Your task to perform on an android device: turn off notifications settings in the gmail app Image 0: 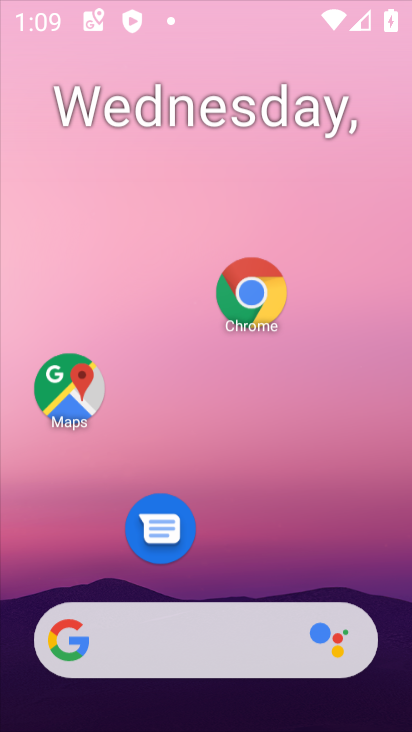
Step 0: click (278, 55)
Your task to perform on an android device: turn off notifications settings in the gmail app Image 1: 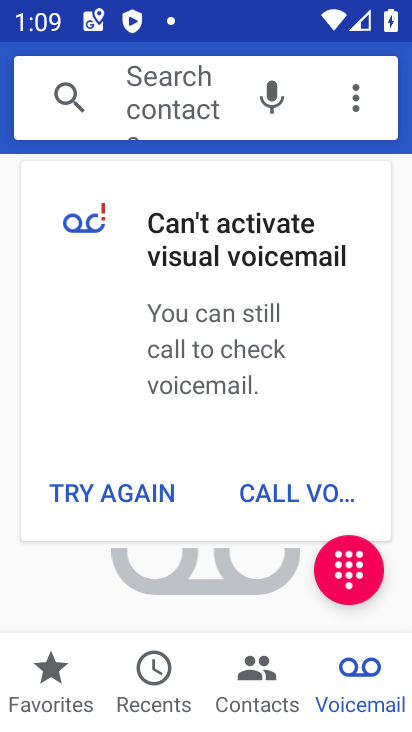
Step 1: press home button
Your task to perform on an android device: turn off notifications settings in the gmail app Image 2: 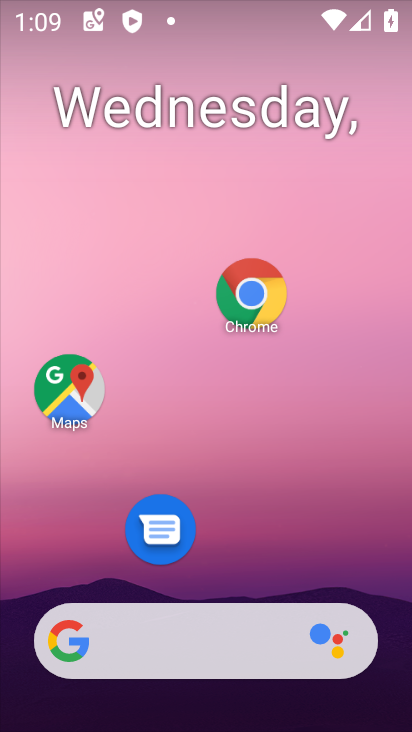
Step 2: drag from (283, 476) to (363, 40)
Your task to perform on an android device: turn off notifications settings in the gmail app Image 3: 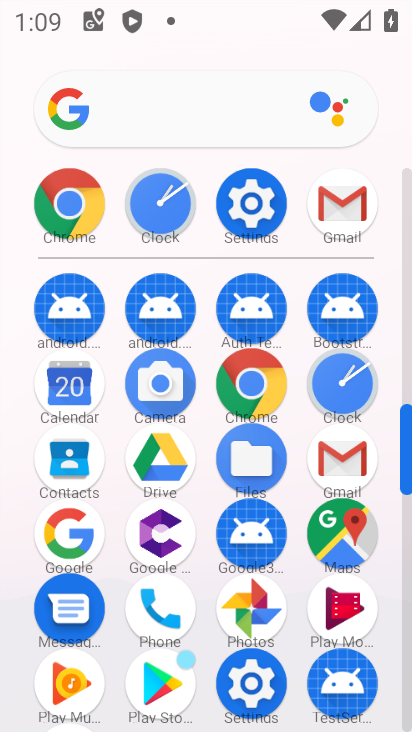
Step 3: click (341, 468)
Your task to perform on an android device: turn off notifications settings in the gmail app Image 4: 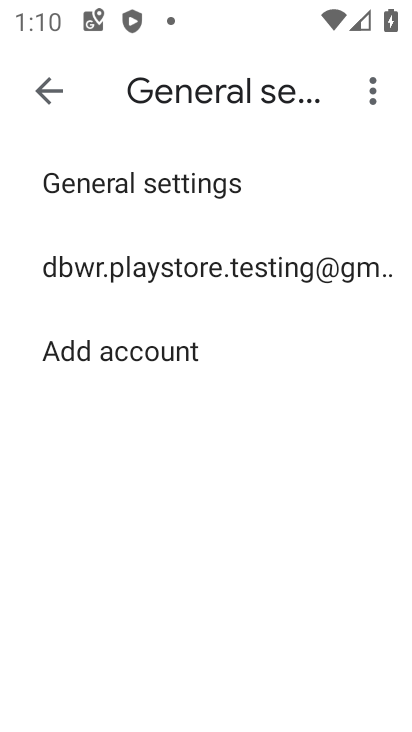
Step 4: click (263, 196)
Your task to perform on an android device: turn off notifications settings in the gmail app Image 5: 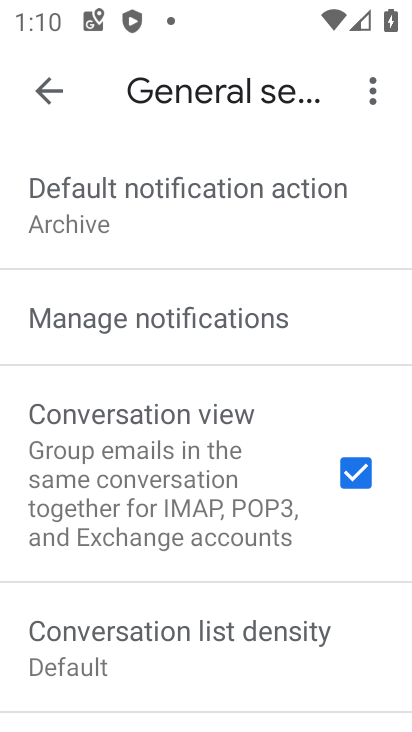
Step 5: click (272, 316)
Your task to perform on an android device: turn off notifications settings in the gmail app Image 6: 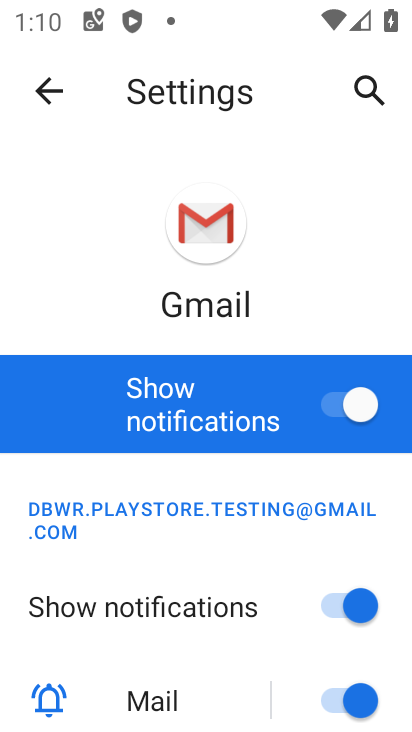
Step 6: click (339, 419)
Your task to perform on an android device: turn off notifications settings in the gmail app Image 7: 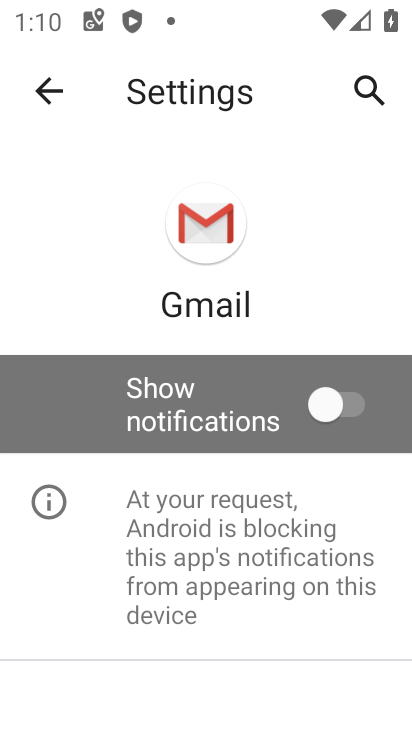
Step 7: task complete